Your task to perform on an android device: turn off priority inbox in the gmail app Image 0: 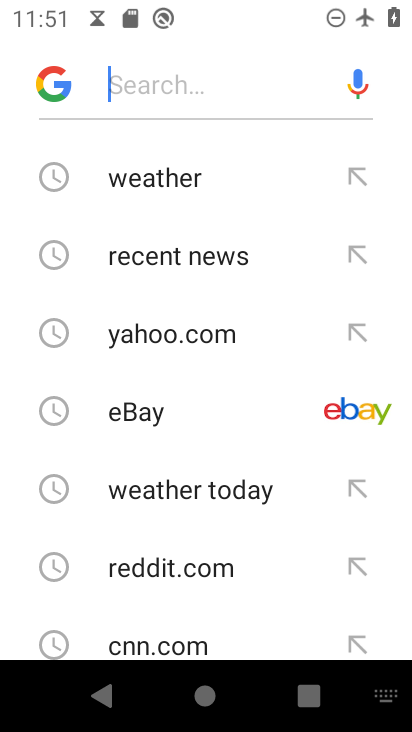
Step 0: press back button
Your task to perform on an android device: turn off priority inbox in the gmail app Image 1: 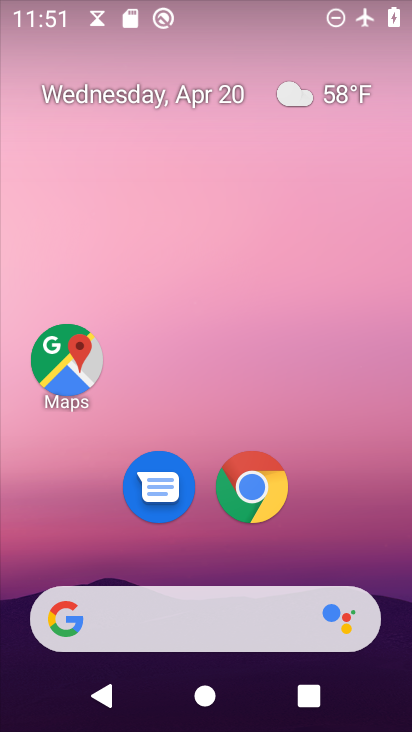
Step 1: drag from (337, 496) to (268, 22)
Your task to perform on an android device: turn off priority inbox in the gmail app Image 2: 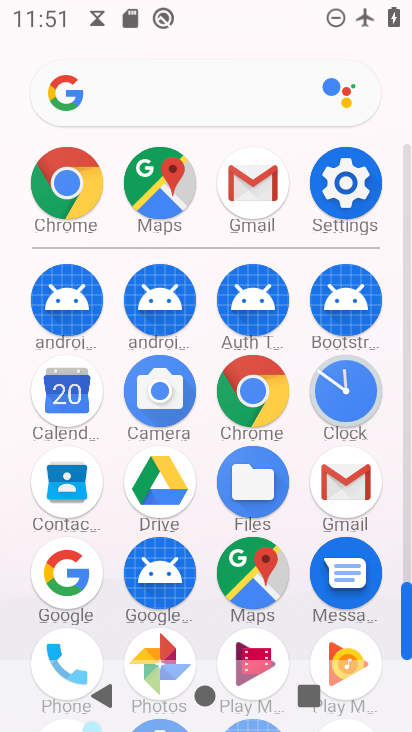
Step 2: drag from (5, 529) to (9, 244)
Your task to perform on an android device: turn off priority inbox in the gmail app Image 3: 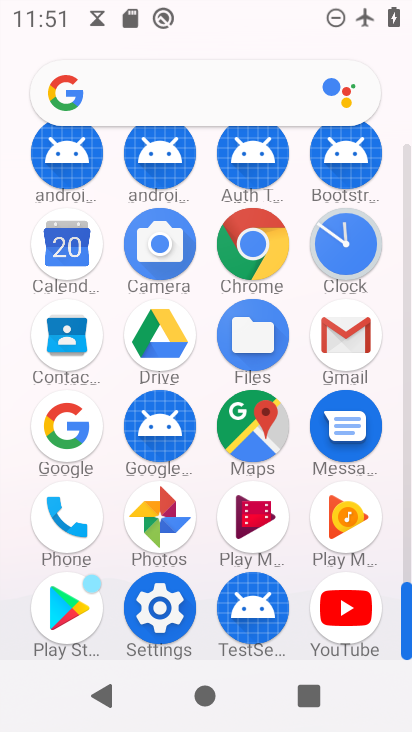
Step 3: click (348, 322)
Your task to perform on an android device: turn off priority inbox in the gmail app Image 4: 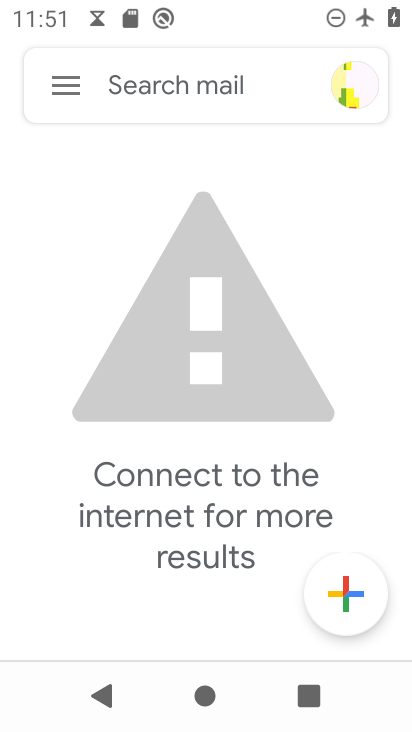
Step 4: click (59, 80)
Your task to perform on an android device: turn off priority inbox in the gmail app Image 5: 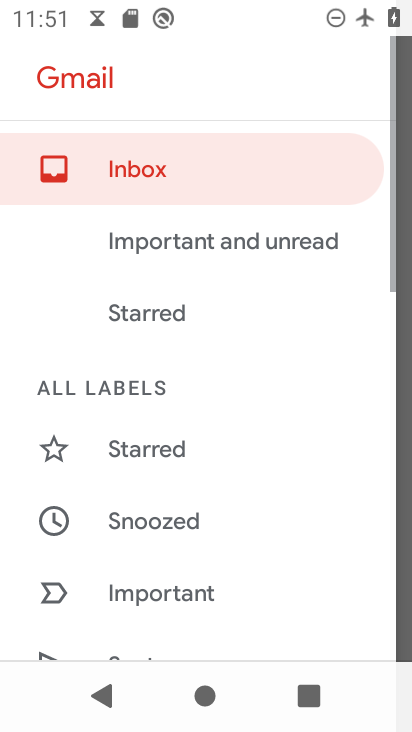
Step 5: drag from (280, 560) to (254, 163)
Your task to perform on an android device: turn off priority inbox in the gmail app Image 6: 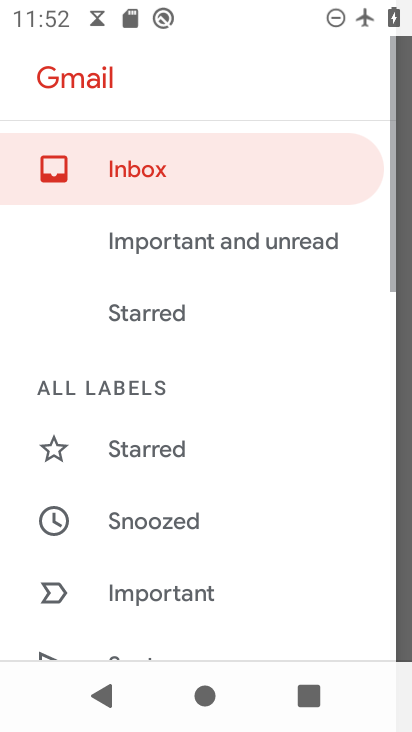
Step 6: drag from (244, 622) to (246, 260)
Your task to perform on an android device: turn off priority inbox in the gmail app Image 7: 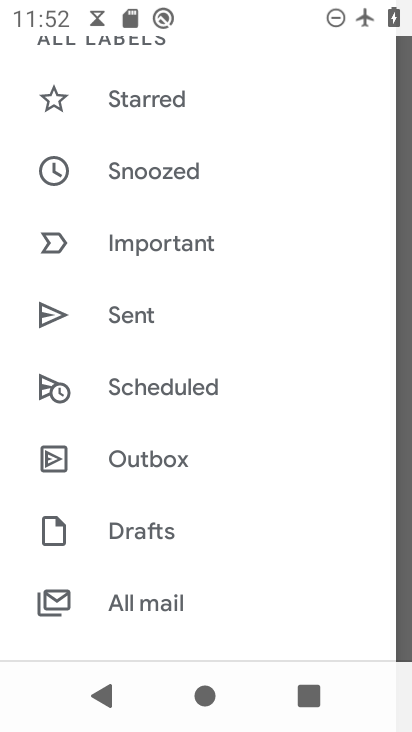
Step 7: drag from (225, 630) to (221, 201)
Your task to perform on an android device: turn off priority inbox in the gmail app Image 8: 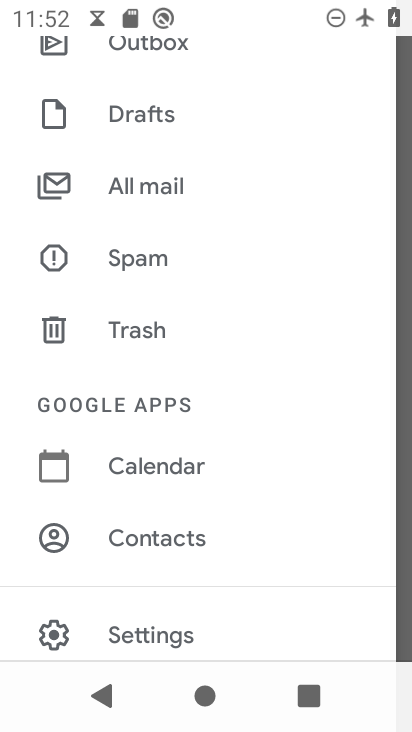
Step 8: drag from (186, 674) to (218, 245)
Your task to perform on an android device: turn off priority inbox in the gmail app Image 9: 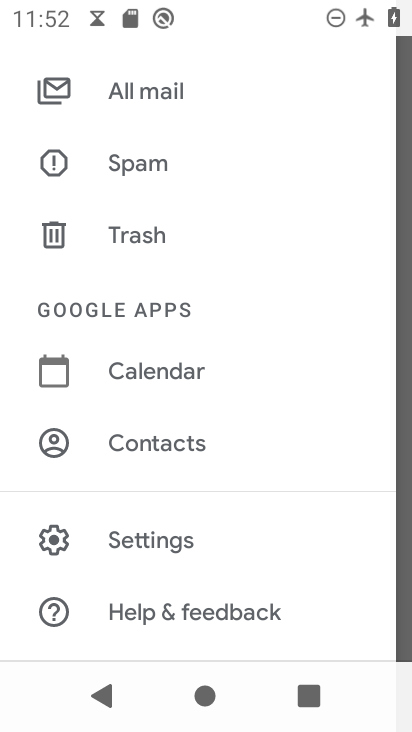
Step 9: click (156, 540)
Your task to perform on an android device: turn off priority inbox in the gmail app Image 10: 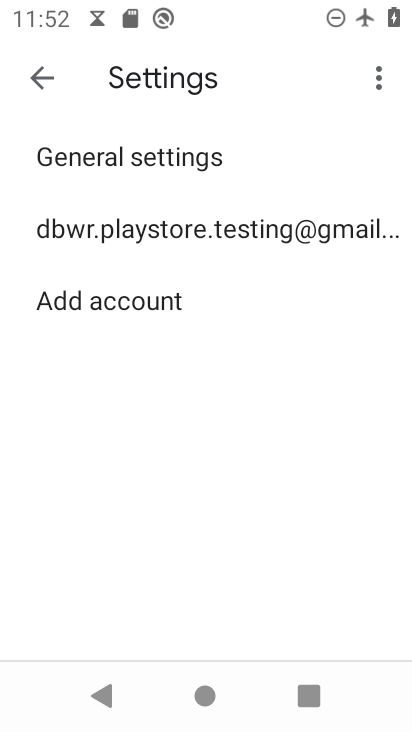
Step 10: click (147, 225)
Your task to perform on an android device: turn off priority inbox in the gmail app Image 11: 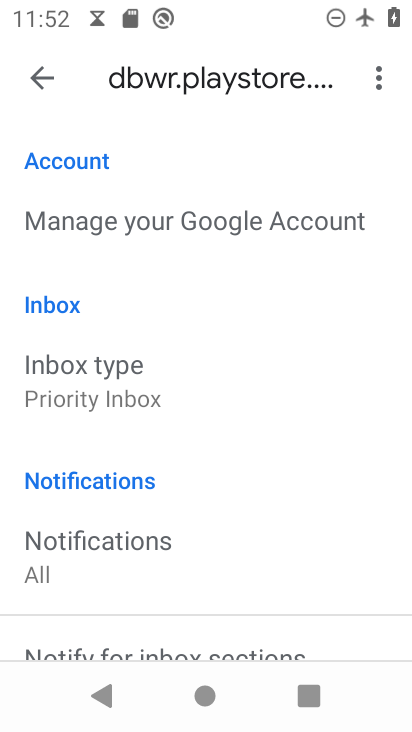
Step 11: click (112, 379)
Your task to perform on an android device: turn off priority inbox in the gmail app Image 12: 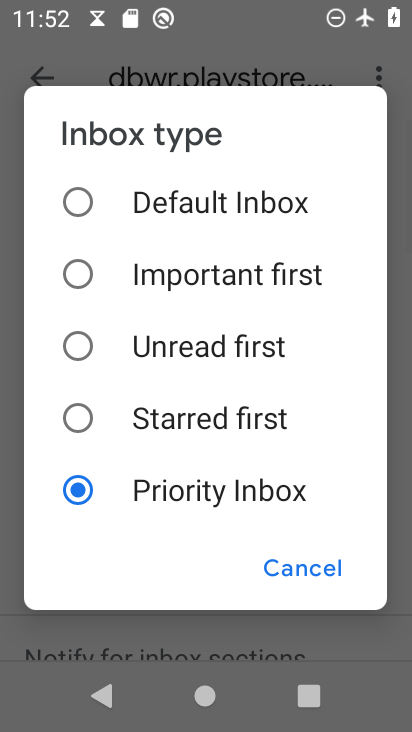
Step 12: click (171, 209)
Your task to perform on an android device: turn off priority inbox in the gmail app Image 13: 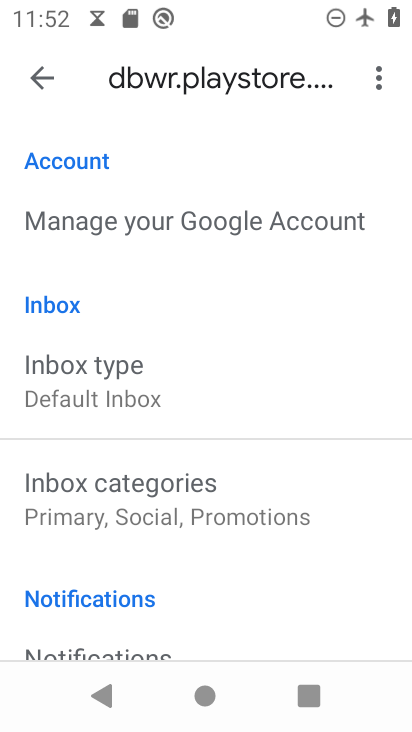
Step 13: task complete